Your task to perform on an android device: Go to Reddit.com Image 0: 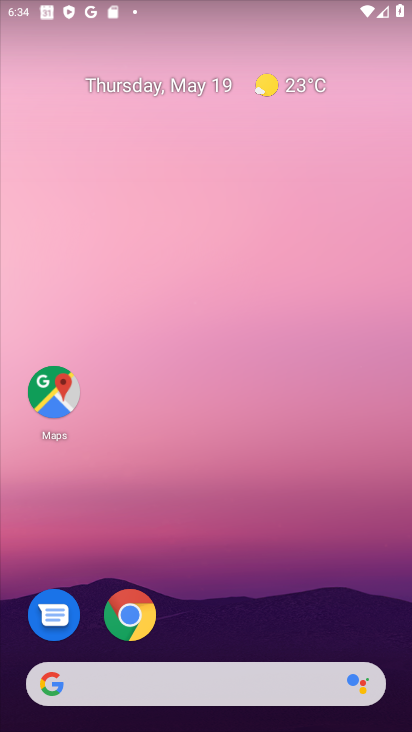
Step 0: drag from (357, 624) to (226, 45)
Your task to perform on an android device: Go to Reddit.com Image 1: 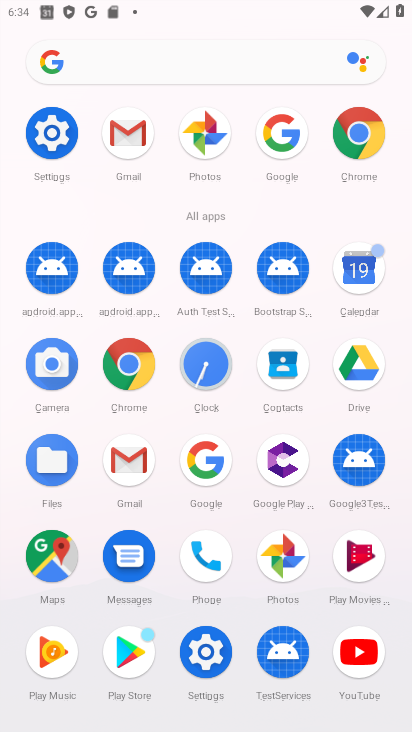
Step 1: click (203, 461)
Your task to perform on an android device: Go to Reddit.com Image 2: 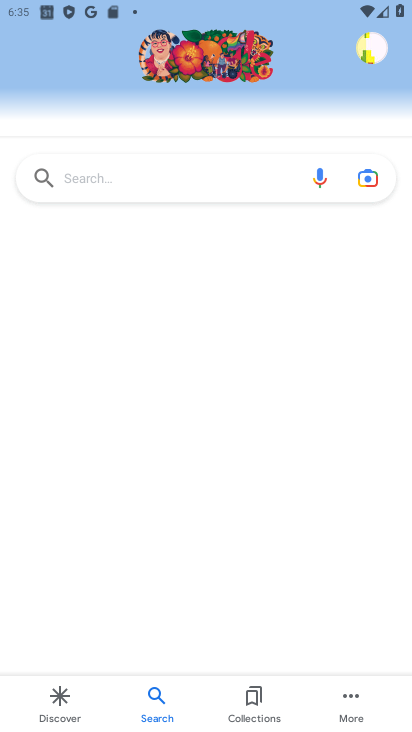
Step 2: click (165, 182)
Your task to perform on an android device: Go to Reddit.com Image 3: 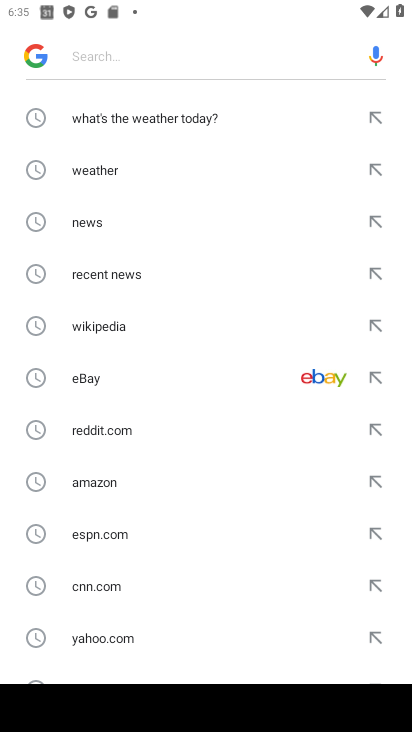
Step 3: click (140, 437)
Your task to perform on an android device: Go to Reddit.com Image 4: 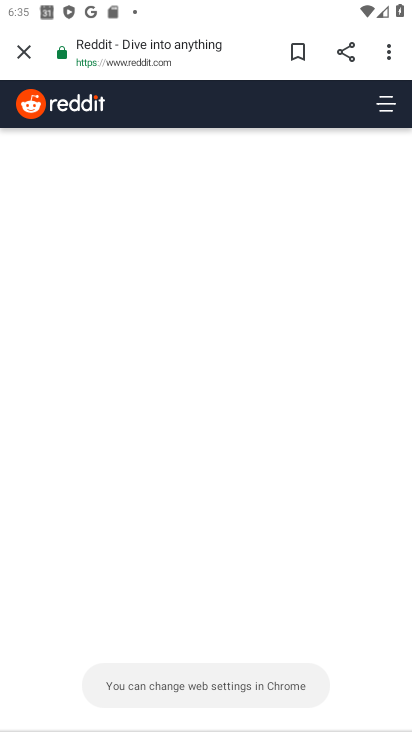
Step 4: click (140, 437)
Your task to perform on an android device: Go to Reddit.com Image 5: 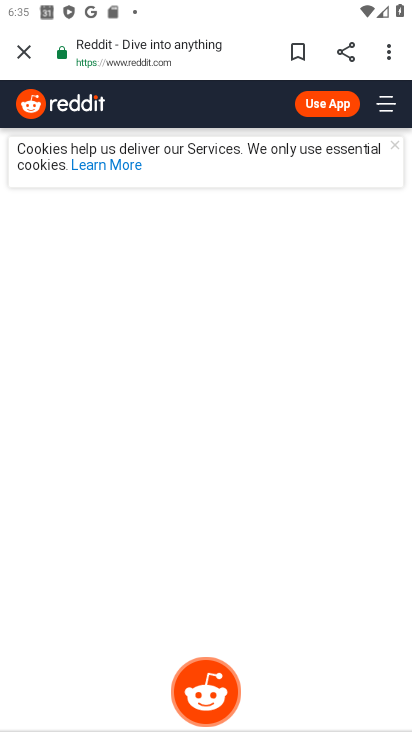
Step 5: task complete